Your task to perform on an android device: Show me popular videos on Youtube Image 0: 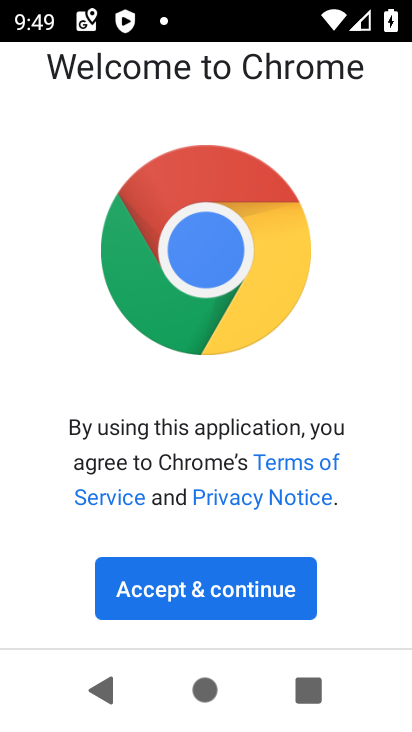
Step 0: click (158, 600)
Your task to perform on an android device: Show me popular videos on Youtube Image 1: 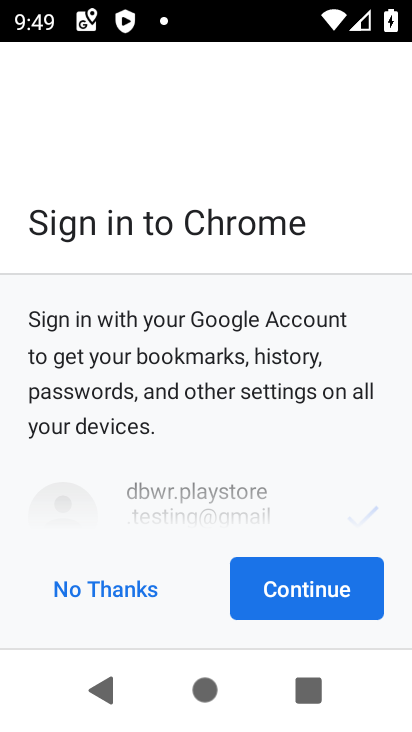
Step 1: click (331, 602)
Your task to perform on an android device: Show me popular videos on Youtube Image 2: 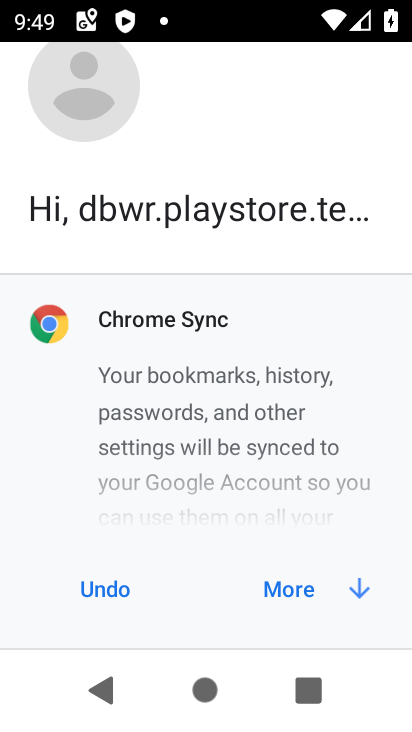
Step 2: click (292, 591)
Your task to perform on an android device: Show me popular videos on Youtube Image 3: 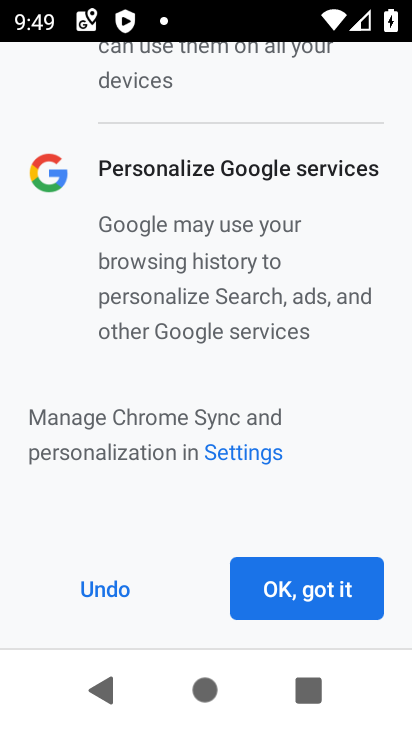
Step 3: click (292, 591)
Your task to perform on an android device: Show me popular videos on Youtube Image 4: 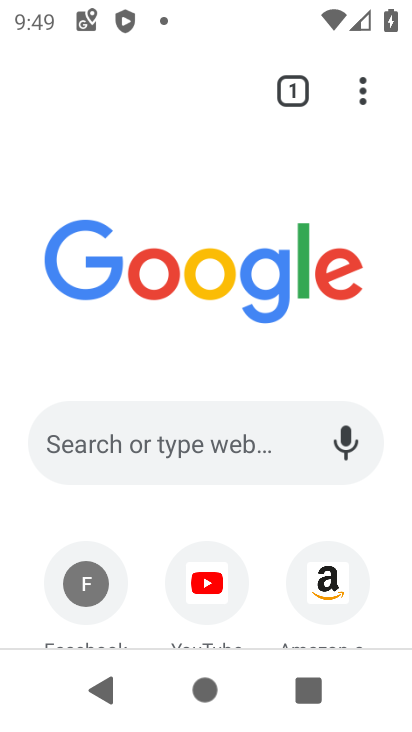
Step 4: click (210, 562)
Your task to perform on an android device: Show me popular videos on Youtube Image 5: 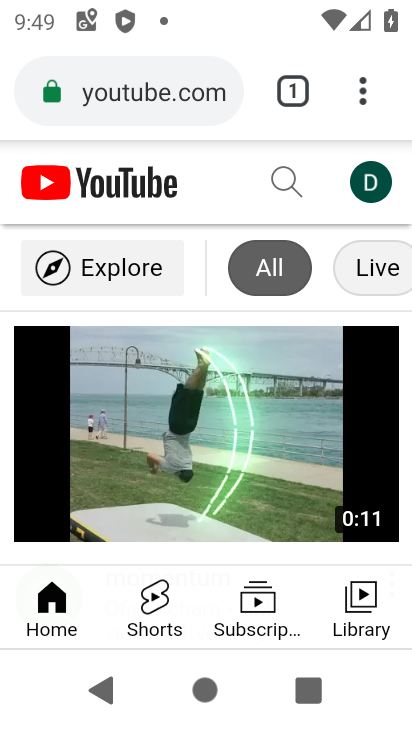
Step 5: task complete